Your task to perform on an android device: Go to settings Image 0: 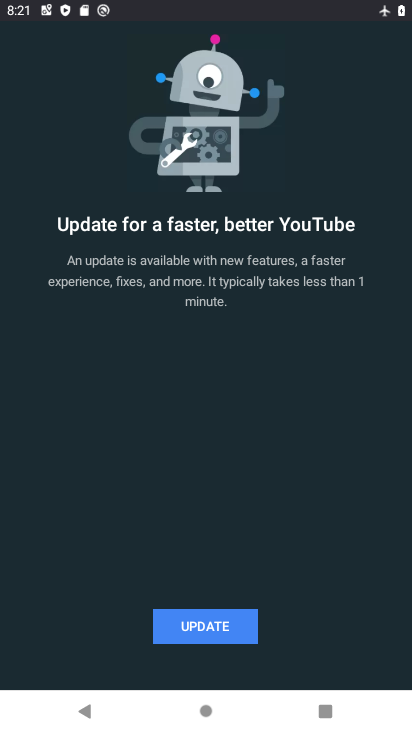
Step 0: press home button
Your task to perform on an android device: Go to settings Image 1: 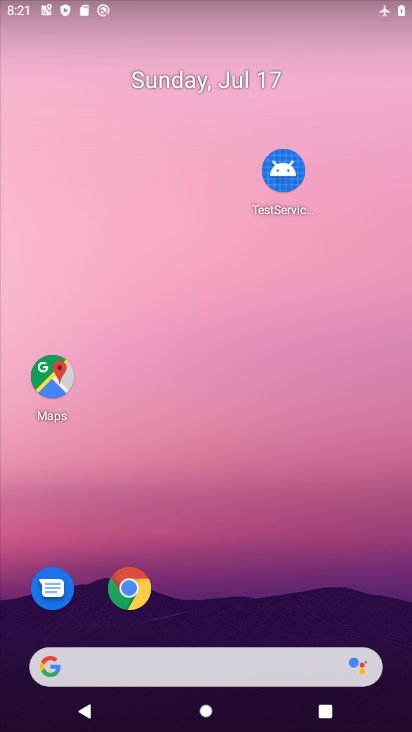
Step 1: drag from (210, 676) to (378, 17)
Your task to perform on an android device: Go to settings Image 2: 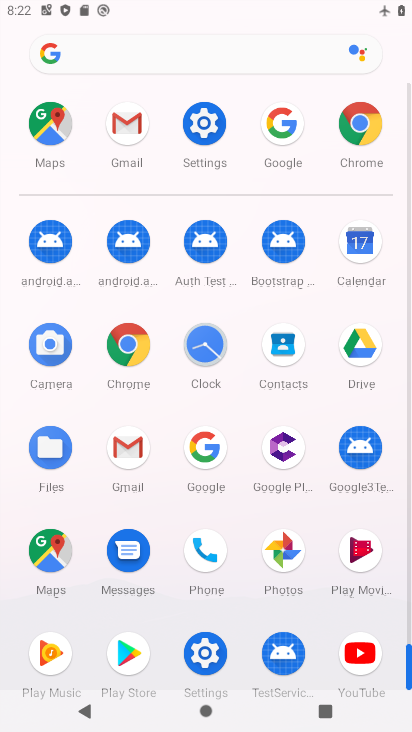
Step 2: click (213, 156)
Your task to perform on an android device: Go to settings Image 3: 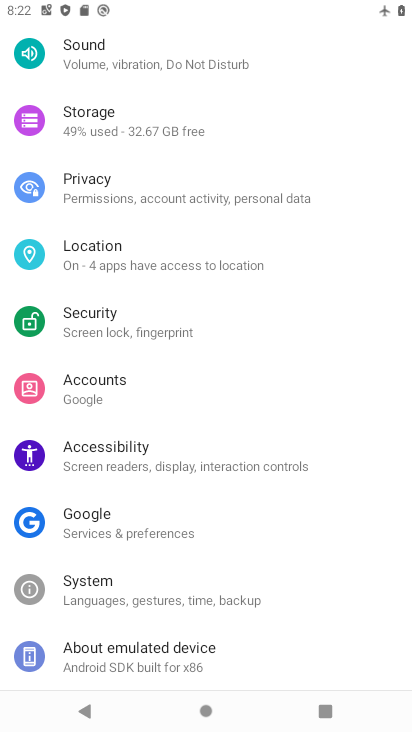
Step 3: task complete